Your task to perform on an android device: Search for Mexican restaurants on Maps Image 0: 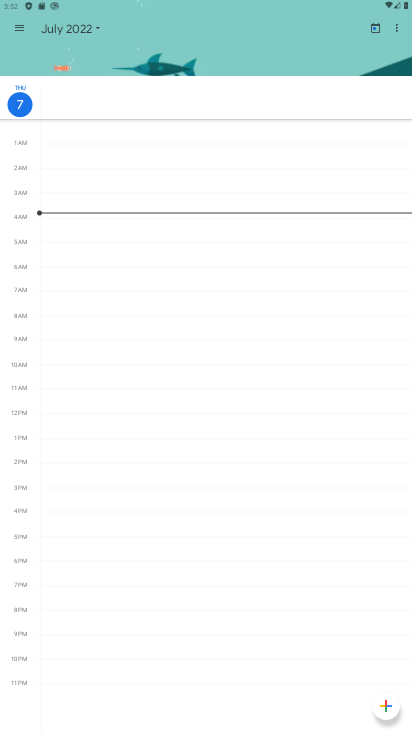
Step 0: press back button
Your task to perform on an android device: Search for Mexican restaurants on Maps Image 1: 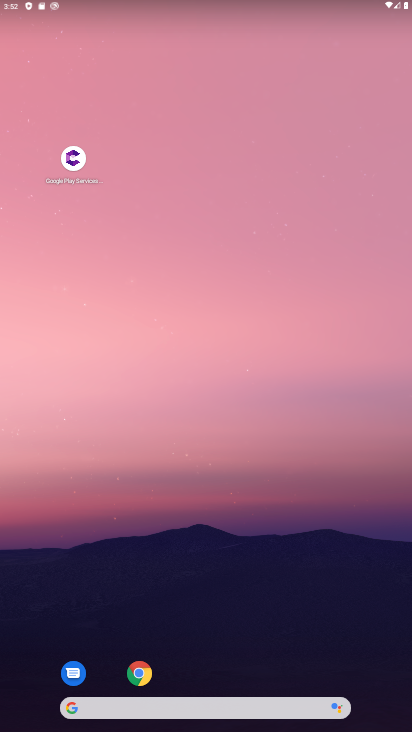
Step 1: drag from (220, 669) to (306, 64)
Your task to perform on an android device: Search for Mexican restaurants on Maps Image 2: 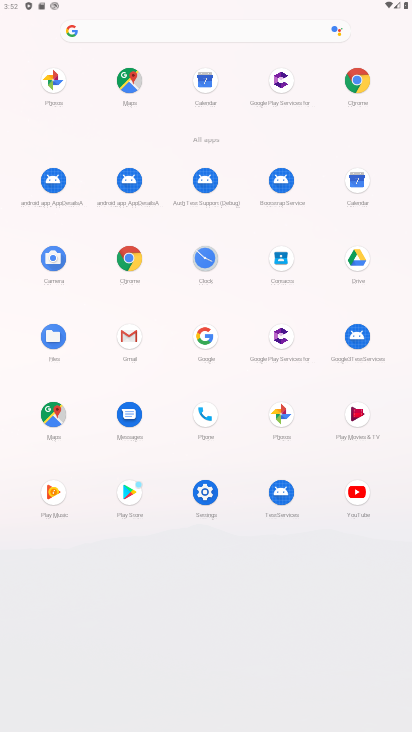
Step 2: click (120, 77)
Your task to perform on an android device: Search for Mexican restaurants on Maps Image 3: 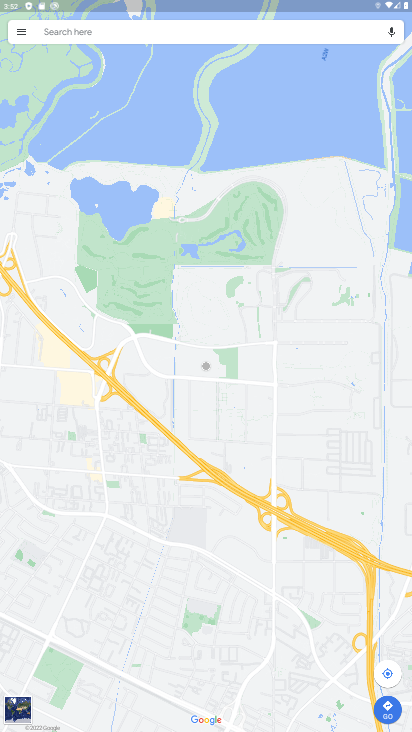
Step 3: click (107, 31)
Your task to perform on an android device: Search for Mexican restaurants on Maps Image 4: 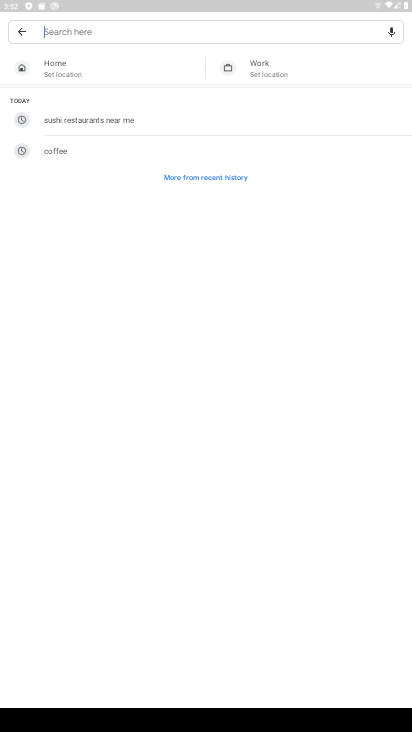
Step 4: type "mexican restaurants"
Your task to perform on an android device: Search for Mexican restaurants on Maps Image 5: 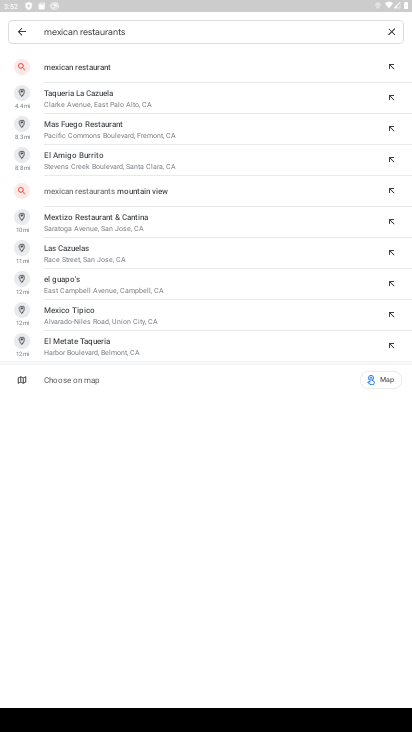
Step 5: click (107, 65)
Your task to perform on an android device: Search for Mexican restaurants on Maps Image 6: 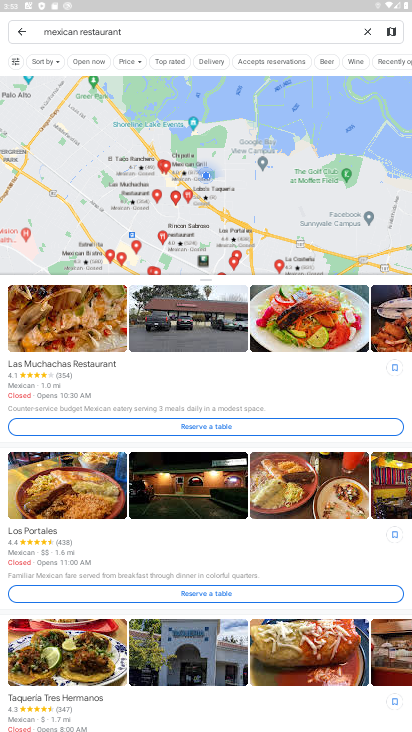
Step 6: task complete